Your task to perform on an android device: Open Wikipedia Image 0: 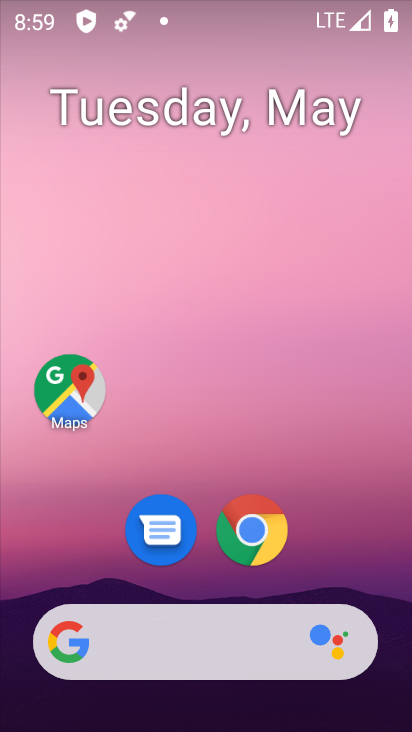
Step 0: click (258, 528)
Your task to perform on an android device: Open Wikipedia Image 1: 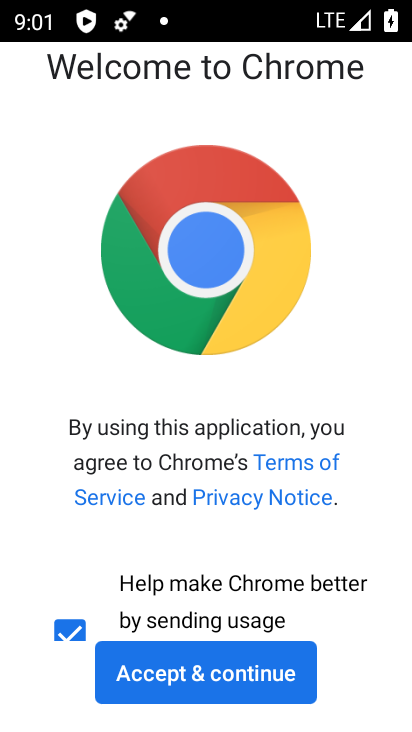
Step 1: click (203, 659)
Your task to perform on an android device: Open Wikipedia Image 2: 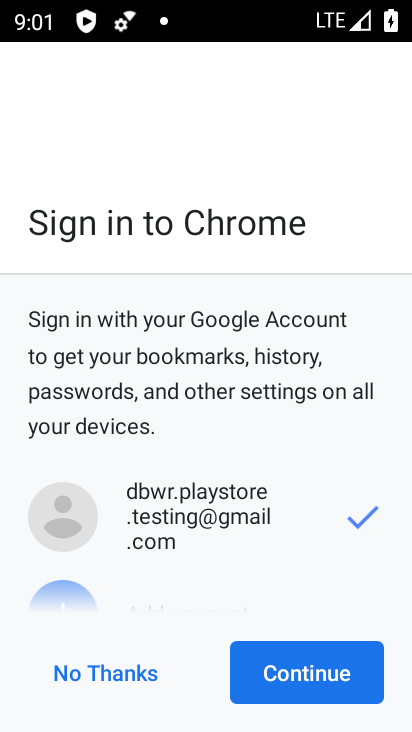
Step 2: click (337, 685)
Your task to perform on an android device: Open Wikipedia Image 3: 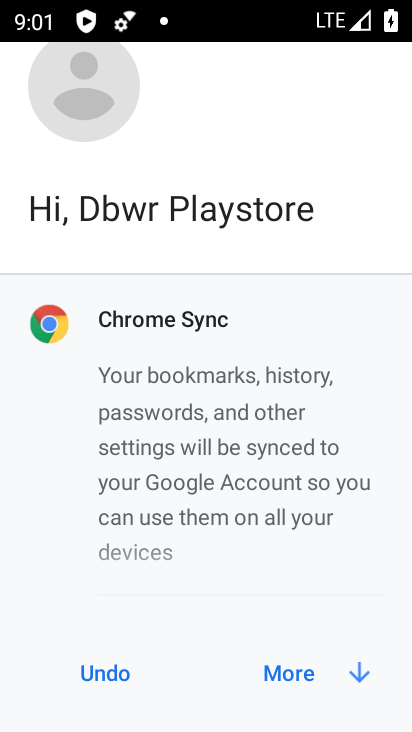
Step 3: click (335, 681)
Your task to perform on an android device: Open Wikipedia Image 4: 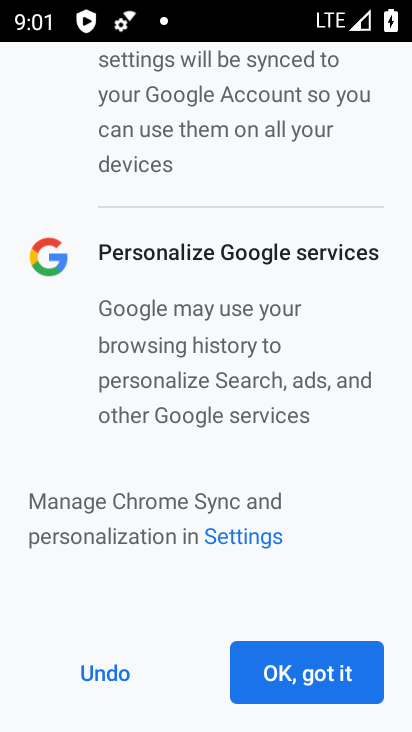
Step 4: click (332, 680)
Your task to perform on an android device: Open Wikipedia Image 5: 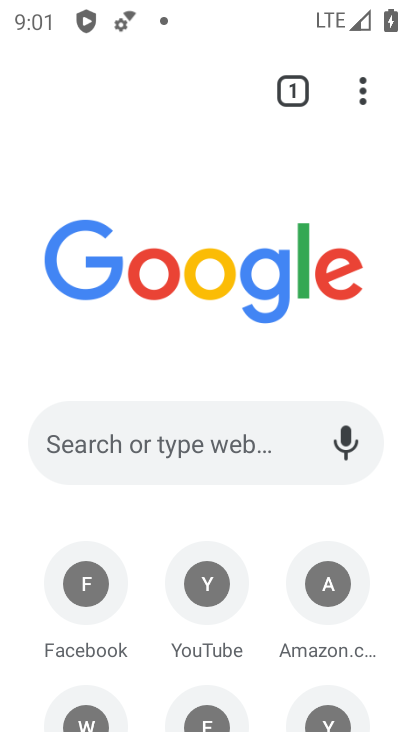
Step 5: click (192, 82)
Your task to perform on an android device: Open Wikipedia Image 6: 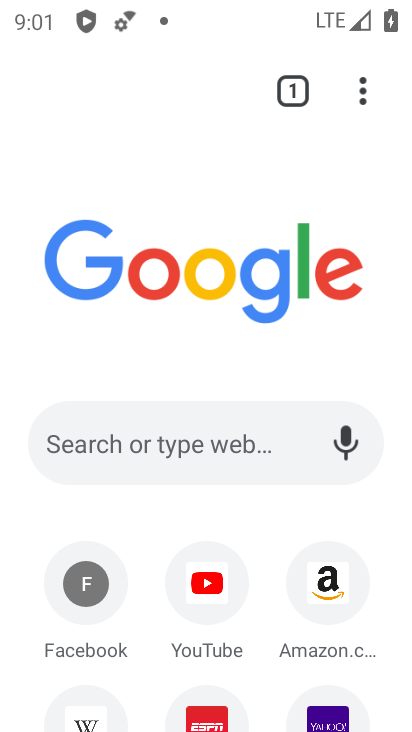
Step 6: click (91, 705)
Your task to perform on an android device: Open Wikipedia Image 7: 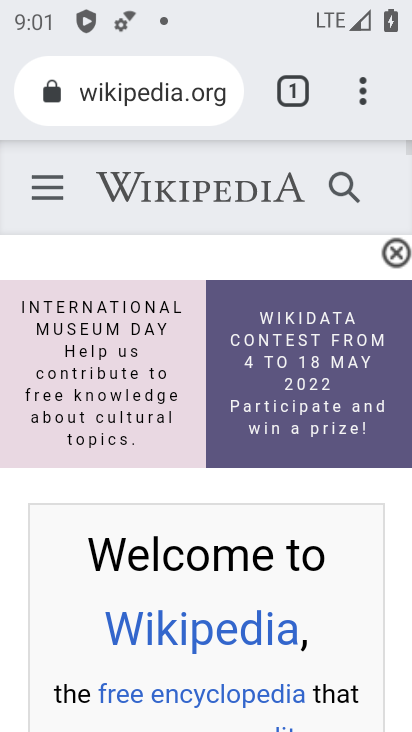
Step 7: task complete